Your task to perform on an android device: Open a new private window in Chrome Image 0: 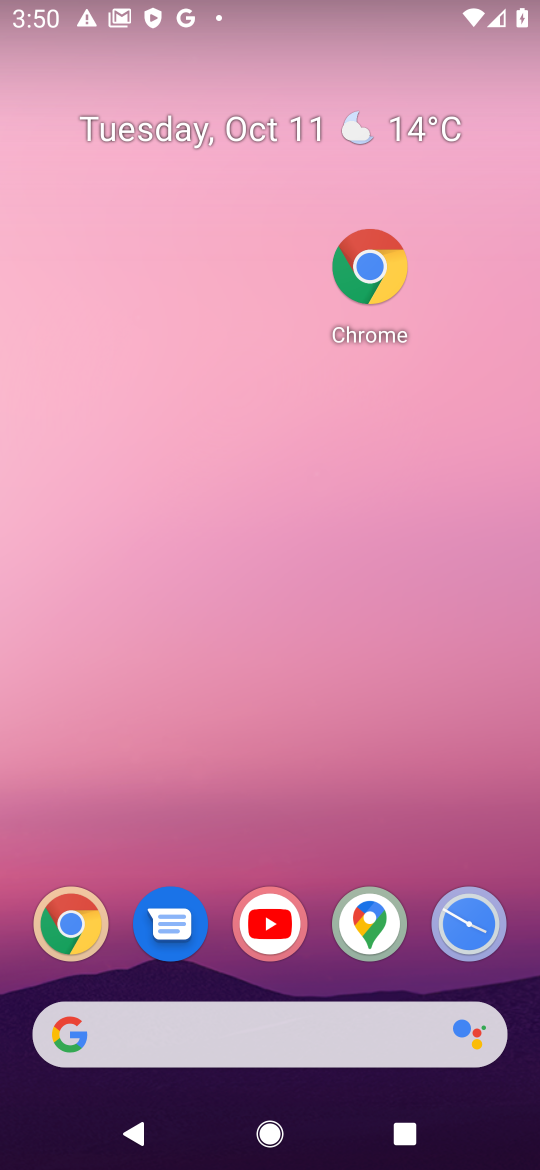
Step 0: click (77, 931)
Your task to perform on an android device: Open a new private window in Chrome Image 1: 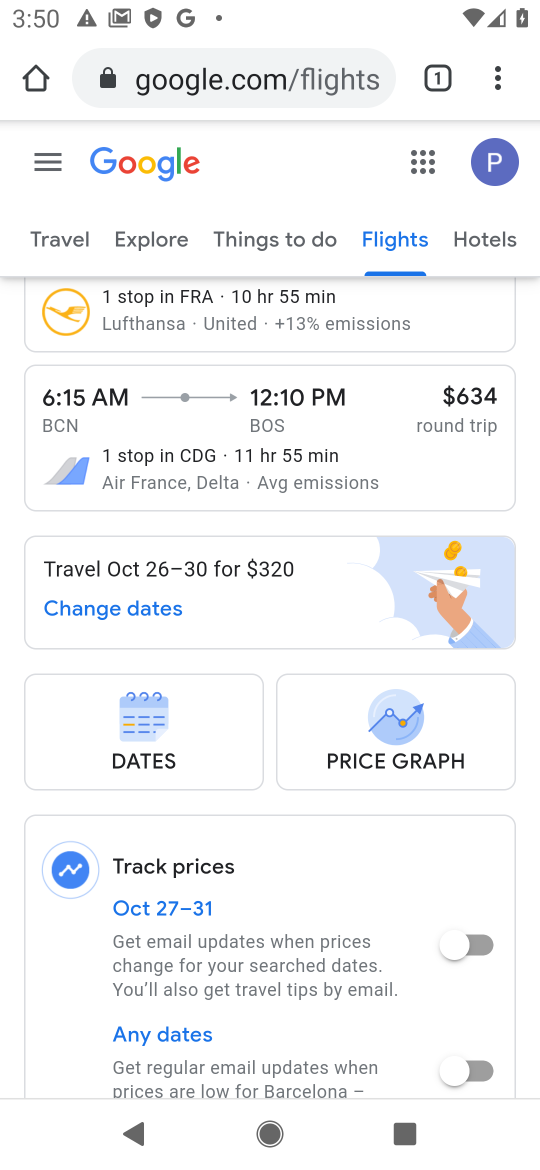
Step 1: click (497, 89)
Your task to perform on an android device: Open a new private window in Chrome Image 2: 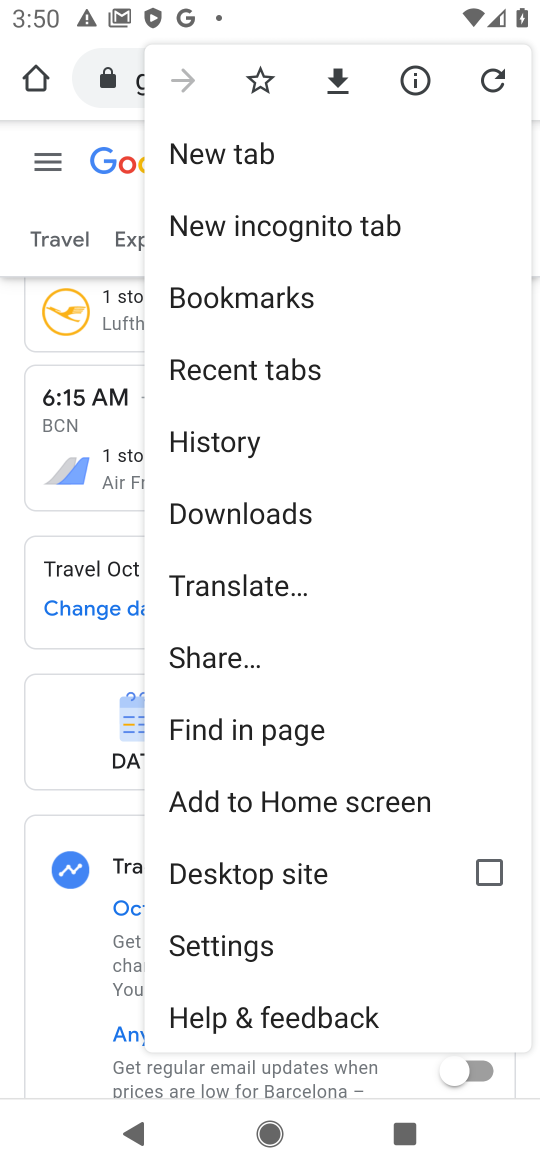
Step 2: click (283, 225)
Your task to perform on an android device: Open a new private window in Chrome Image 3: 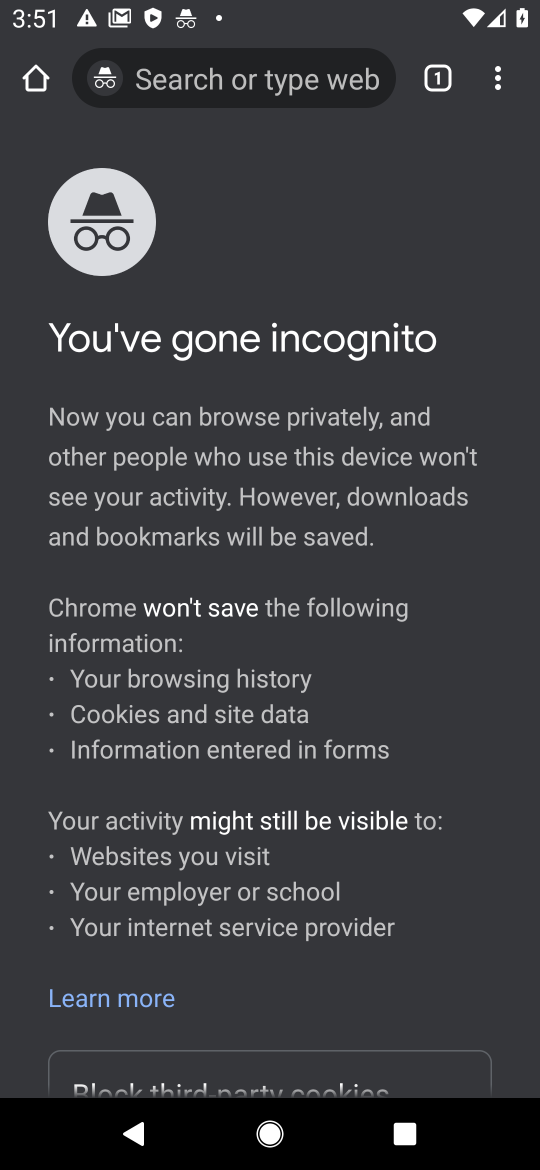
Step 3: task complete